Your task to perform on an android device: Go to display settings Image 0: 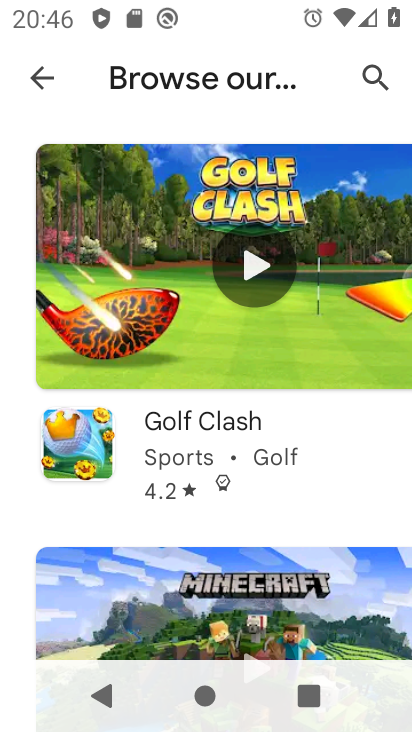
Step 0: press home button
Your task to perform on an android device: Go to display settings Image 1: 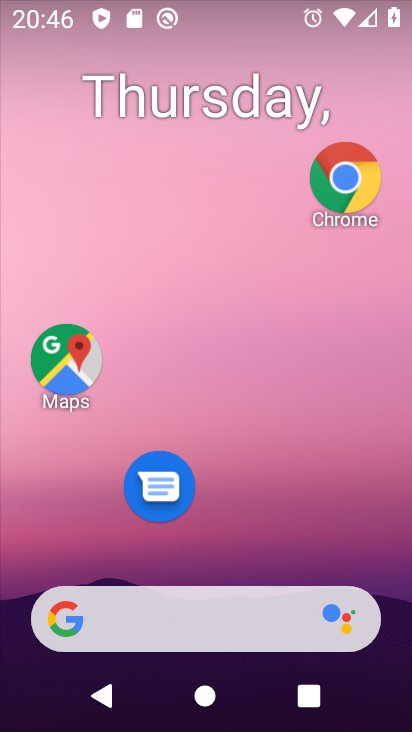
Step 1: drag from (259, 544) to (226, 30)
Your task to perform on an android device: Go to display settings Image 2: 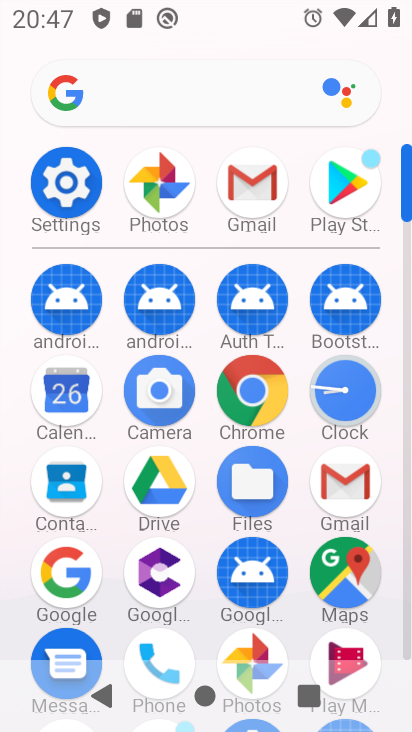
Step 2: click (84, 170)
Your task to perform on an android device: Go to display settings Image 3: 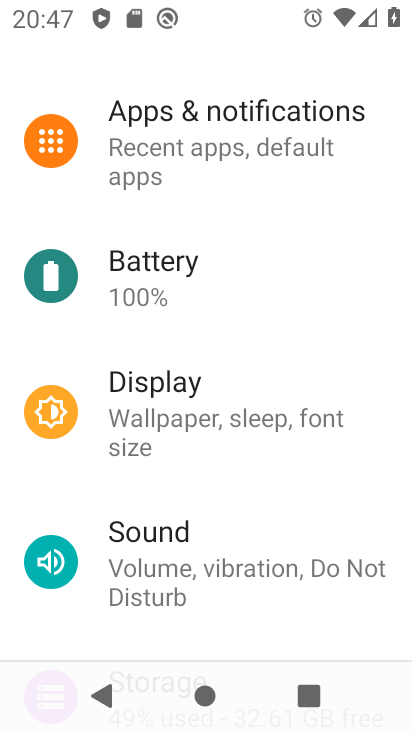
Step 3: click (177, 393)
Your task to perform on an android device: Go to display settings Image 4: 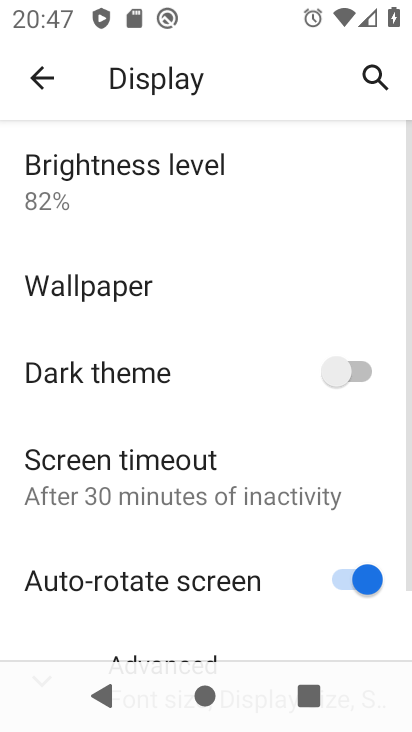
Step 4: drag from (227, 510) to (177, 212)
Your task to perform on an android device: Go to display settings Image 5: 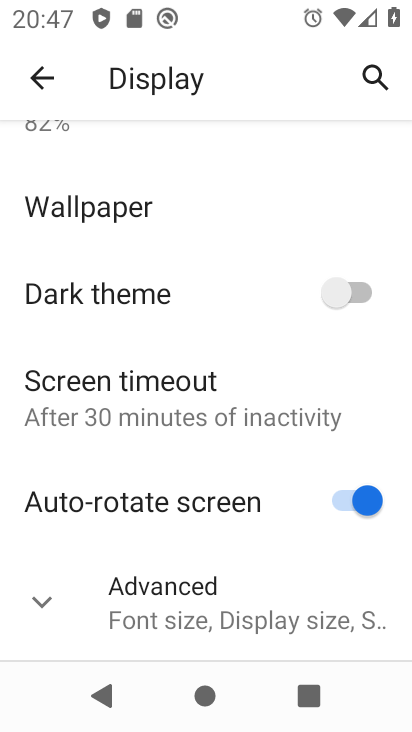
Step 5: click (207, 556)
Your task to perform on an android device: Go to display settings Image 6: 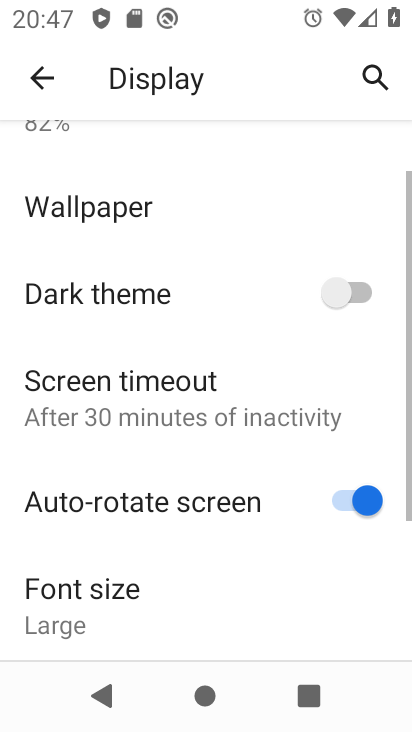
Step 6: task complete